Your task to perform on an android device: delete the emails in spam in the gmail app Image 0: 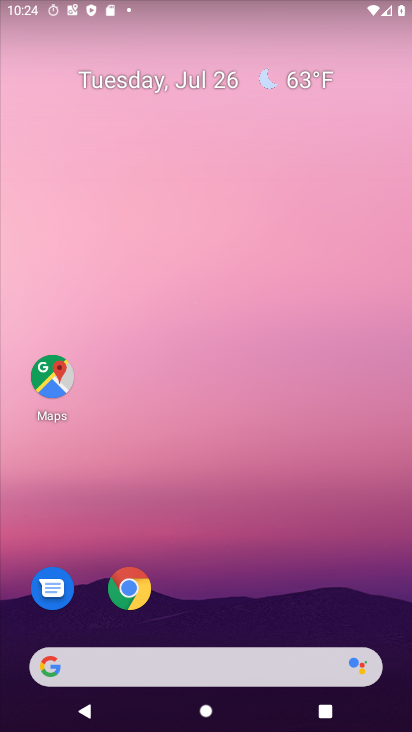
Step 0: drag from (241, 615) to (143, 99)
Your task to perform on an android device: delete the emails in spam in the gmail app Image 1: 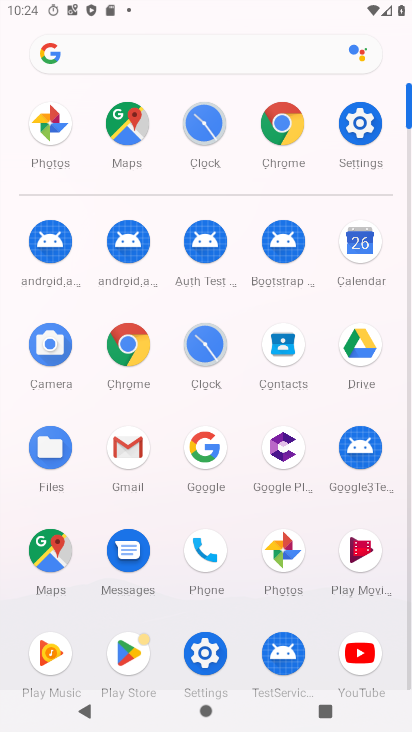
Step 1: click (129, 461)
Your task to perform on an android device: delete the emails in spam in the gmail app Image 2: 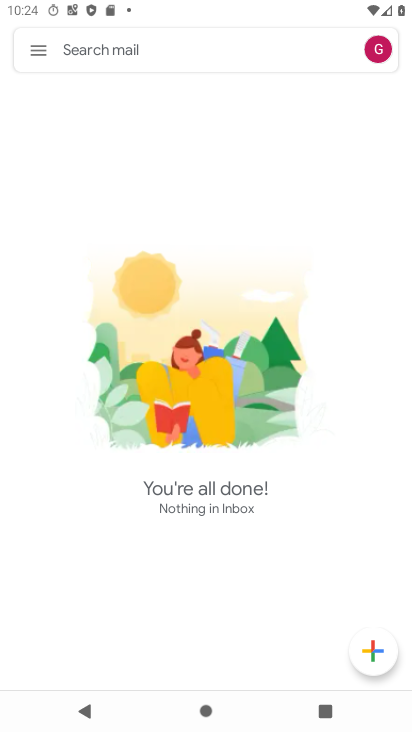
Step 2: click (42, 53)
Your task to perform on an android device: delete the emails in spam in the gmail app Image 3: 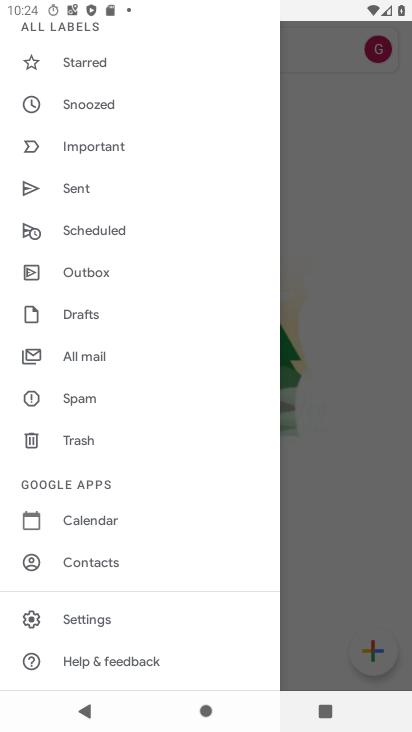
Step 3: click (92, 409)
Your task to perform on an android device: delete the emails in spam in the gmail app Image 4: 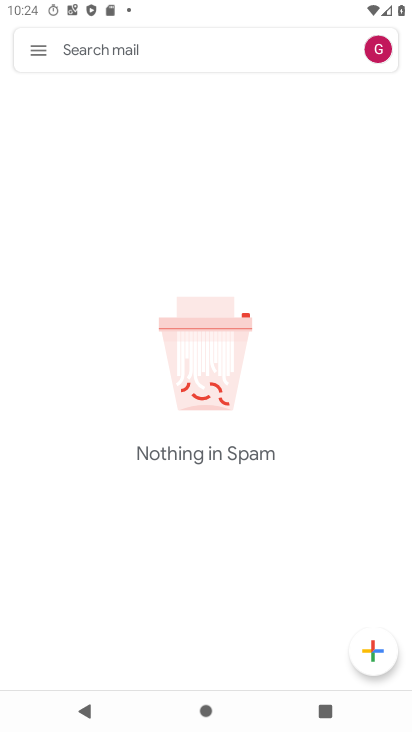
Step 4: task complete